Your task to perform on an android device: open app "Expedia: Hotels, Flights & Car" (install if not already installed) and enter user name: "crusader@outlook.com" and password: "Toryize" Image 0: 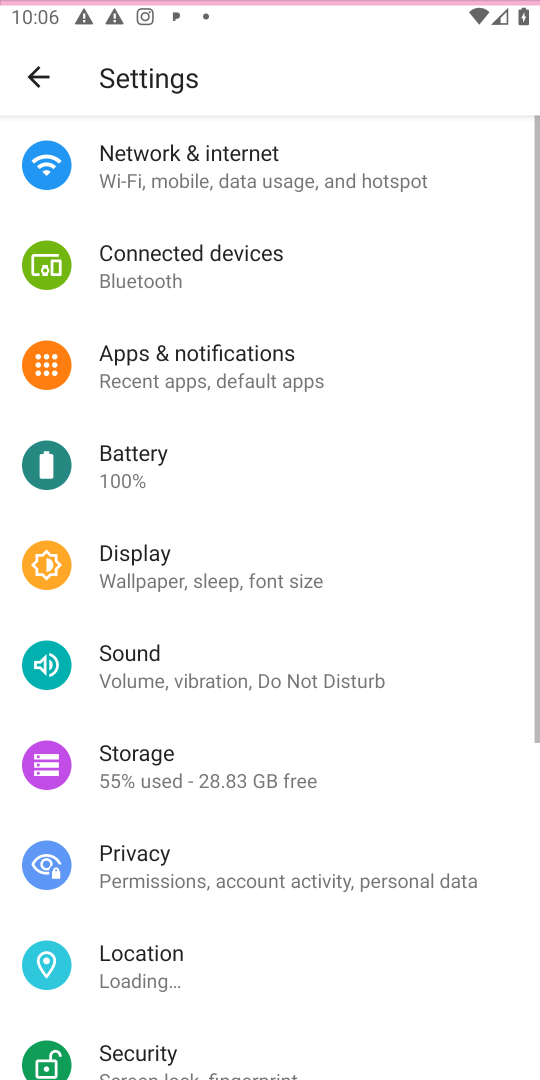
Step 0: press home button
Your task to perform on an android device: open app "Expedia: Hotels, Flights & Car" (install if not already installed) and enter user name: "crusader@outlook.com" and password: "Toryize" Image 1: 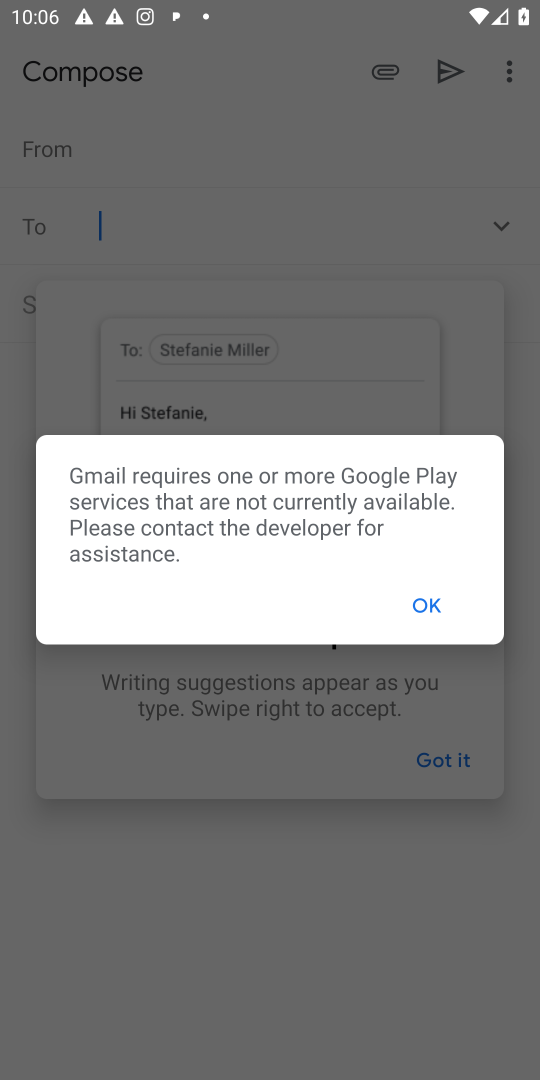
Step 1: press home button
Your task to perform on an android device: open app "Expedia: Hotels, Flights & Car" (install if not already installed) and enter user name: "crusader@outlook.com" and password: "Toryize" Image 2: 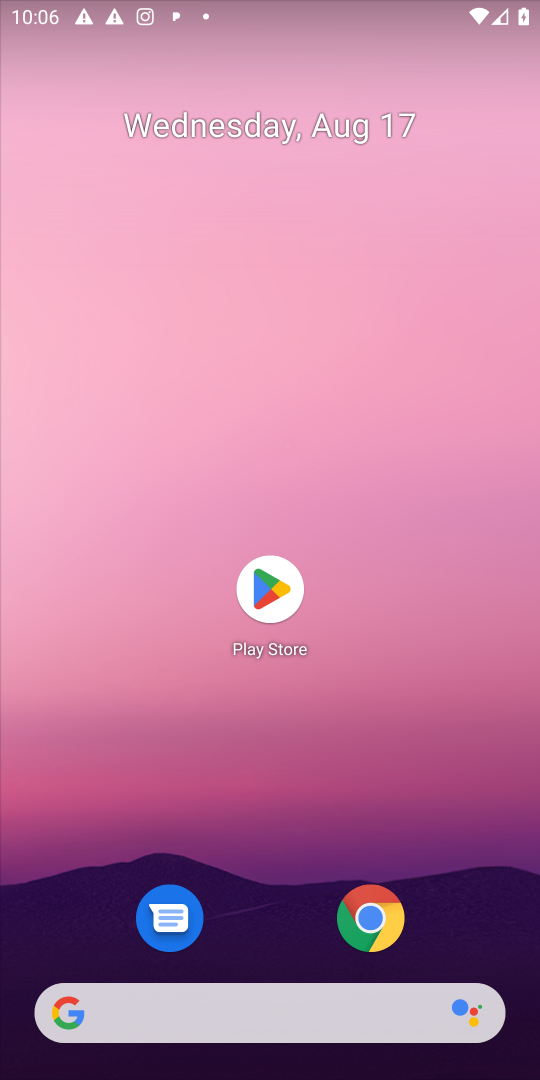
Step 2: press home button
Your task to perform on an android device: open app "Expedia: Hotels, Flights & Car" (install if not already installed) and enter user name: "crusader@outlook.com" and password: "Toryize" Image 3: 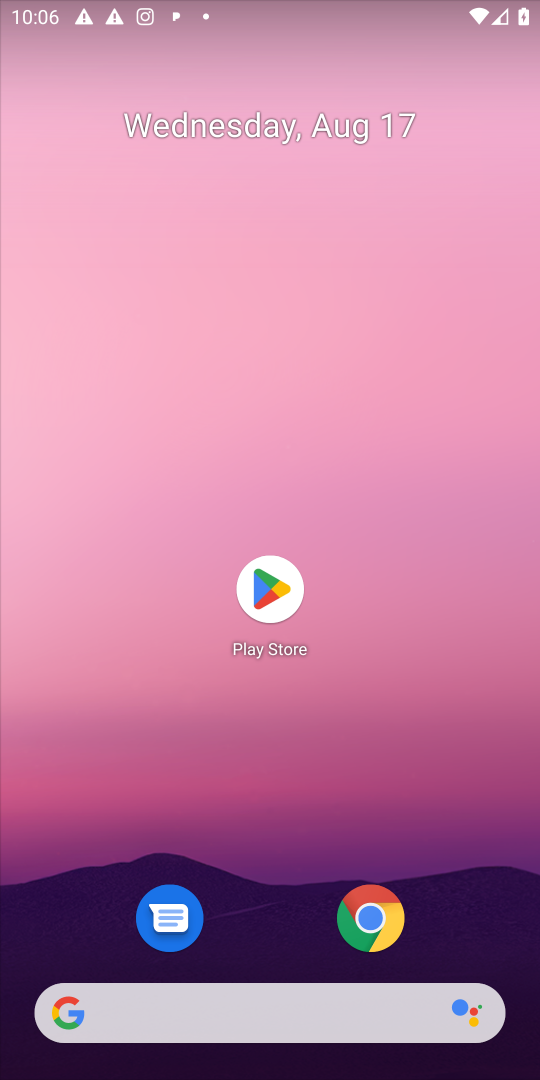
Step 3: click (266, 592)
Your task to perform on an android device: open app "Expedia: Hotels, Flights & Car" (install if not already installed) and enter user name: "crusader@outlook.com" and password: "Toryize" Image 4: 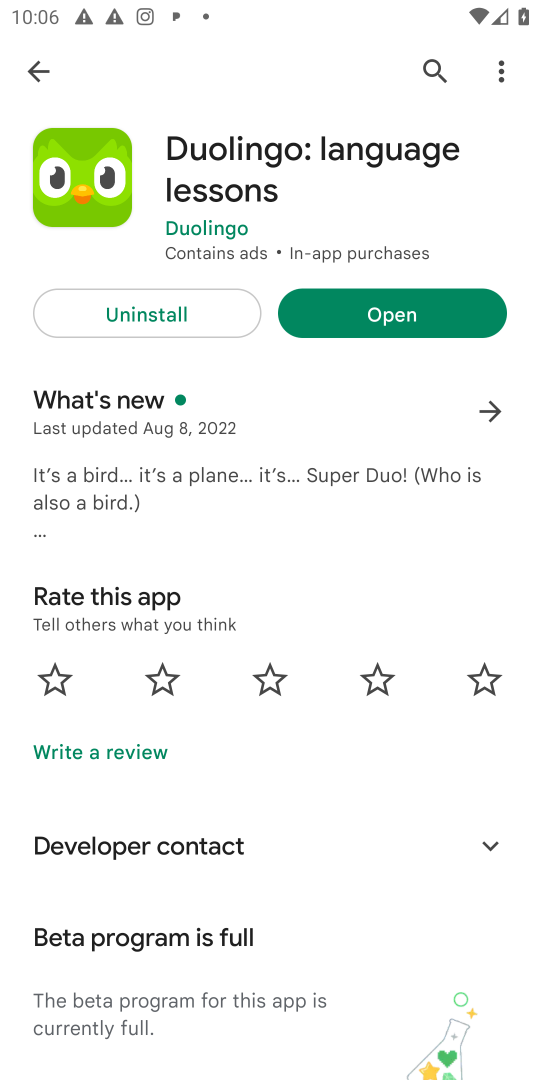
Step 4: click (432, 63)
Your task to perform on an android device: open app "Expedia: Hotels, Flights & Car" (install if not already installed) and enter user name: "crusader@outlook.com" and password: "Toryize" Image 5: 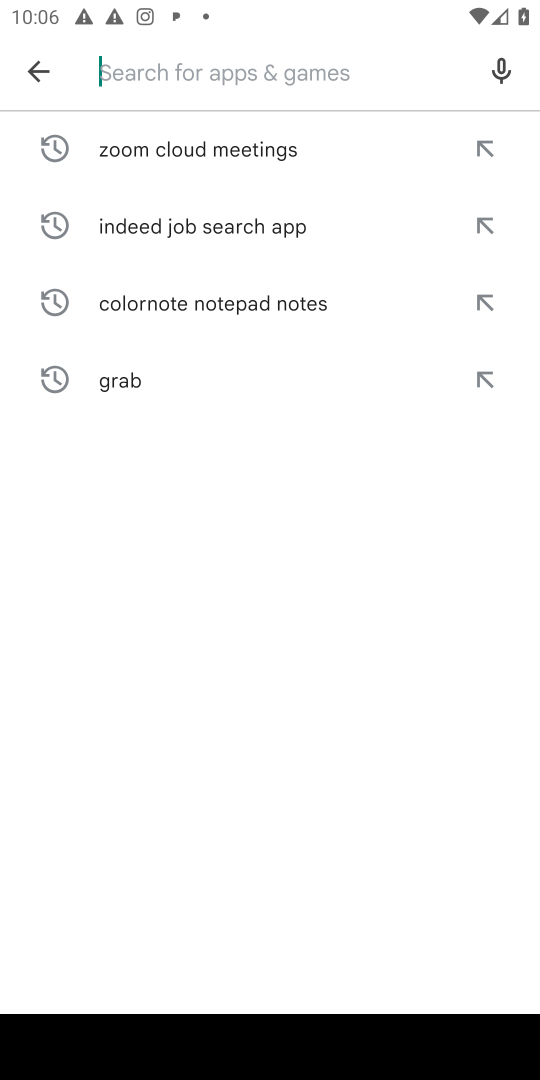
Step 5: type "Expedia: Hotels, Flights & Car"
Your task to perform on an android device: open app "Expedia: Hotels, Flights & Car" (install if not already installed) and enter user name: "crusader@outlook.com" and password: "Toryize" Image 6: 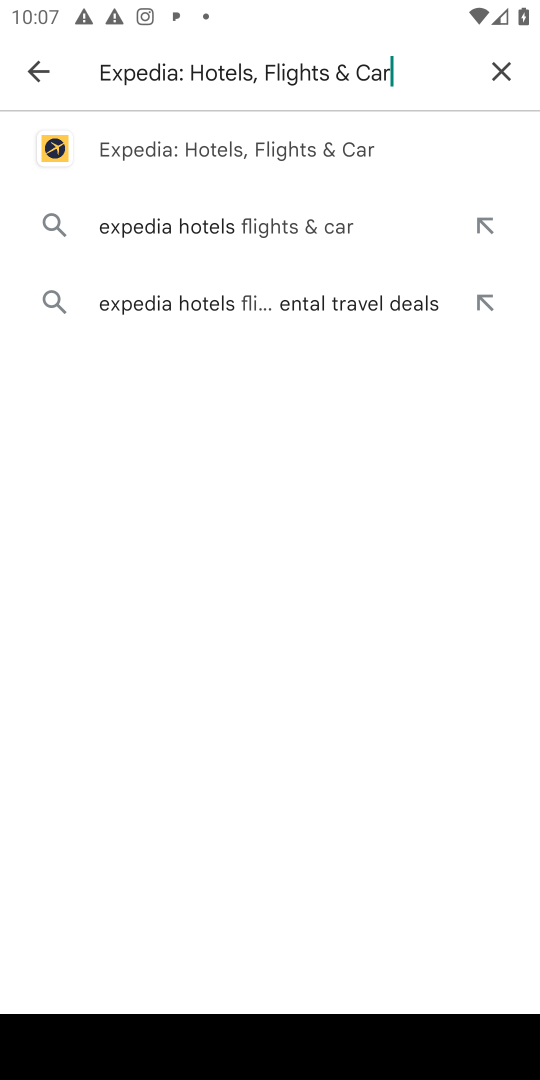
Step 6: click (240, 142)
Your task to perform on an android device: open app "Expedia: Hotels, Flights & Car" (install if not already installed) and enter user name: "crusader@outlook.com" and password: "Toryize" Image 7: 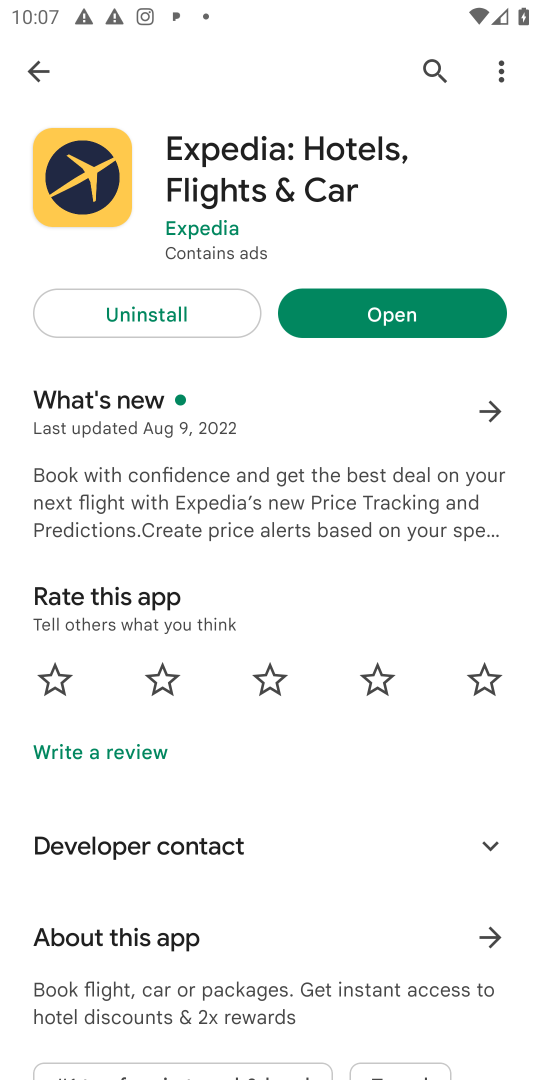
Step 7: click (362, 320)
Your task to perform on an android device: open app "Expedia: Hotels, Flights & Car" (install if not already installed) and enter user name: "crusader@outlook.com" and password: "Toryize" Image 8: 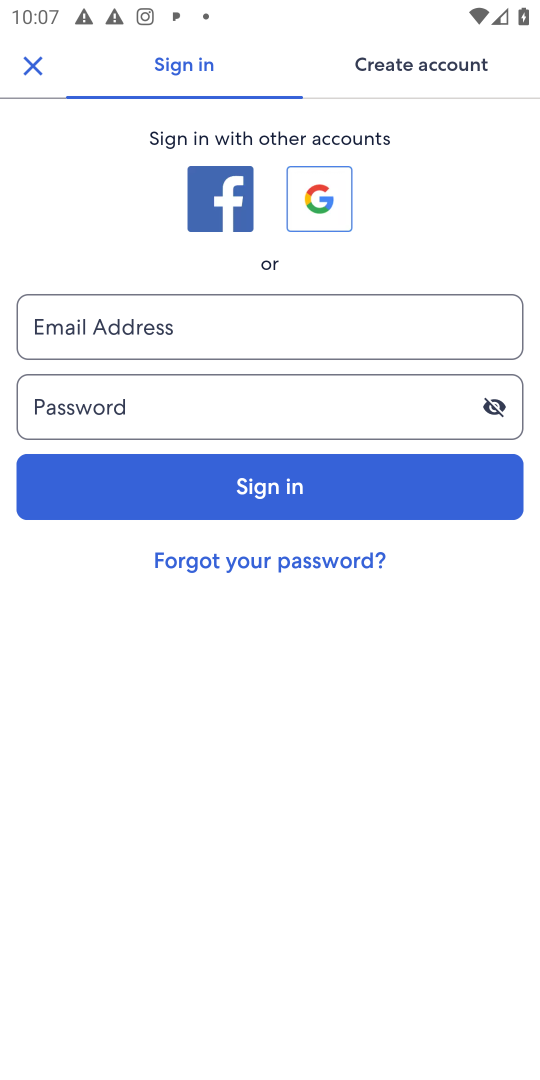
Step 8: click (192, 315)
Your task to perform on an android device: open app "Expedia: Hotels, Flights & Car" (install if not already installed) and enter user name: "crusader@outlook.com" and password: "Toryize" Image 9: 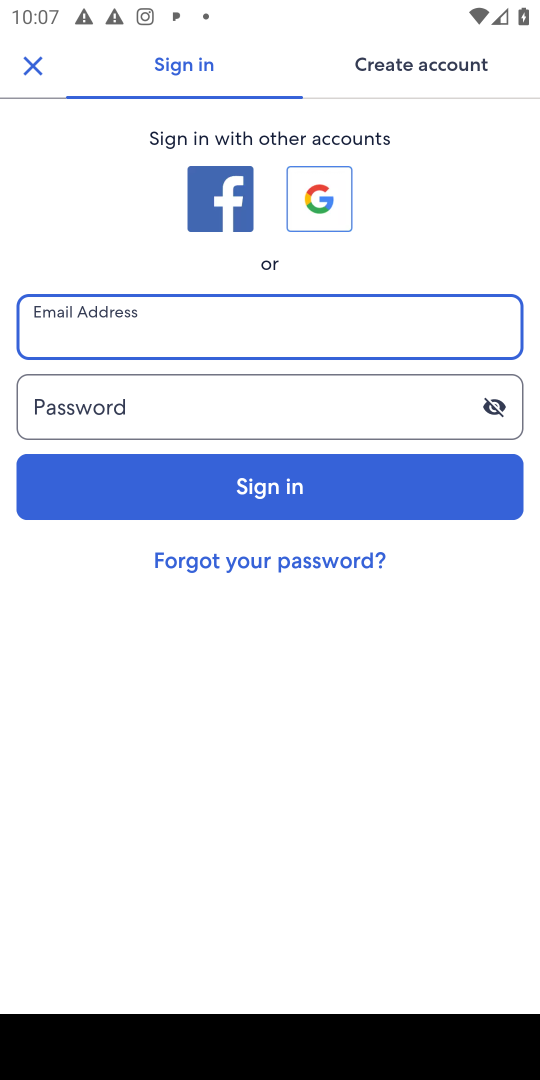
Step 9: type "crusader@outlook.com"
Your task to perform on an android device: open app "Expedia: Hotels, Flights & Car" (install if not already installed) and enter user name: "crusader@outlook.com" and password: "Toryize" Image 10: 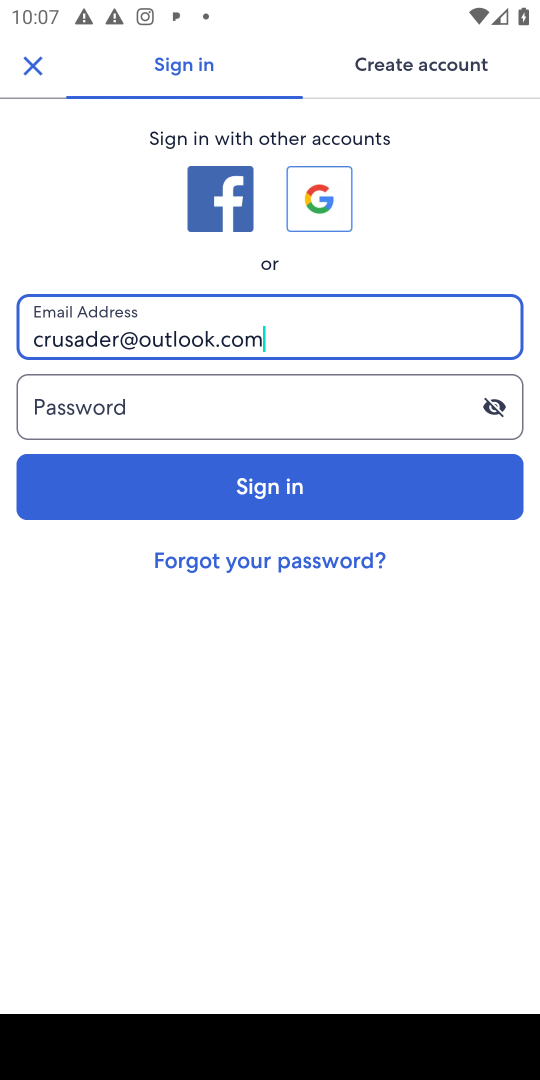
Step 10: click (94, 405)
Your task to perform on an android device: open app "Expedia: Hotels, Flights & Car" (install if not already installed) and enter user name: "crusader@outlook.com" and password: "Toryize" Image 11: 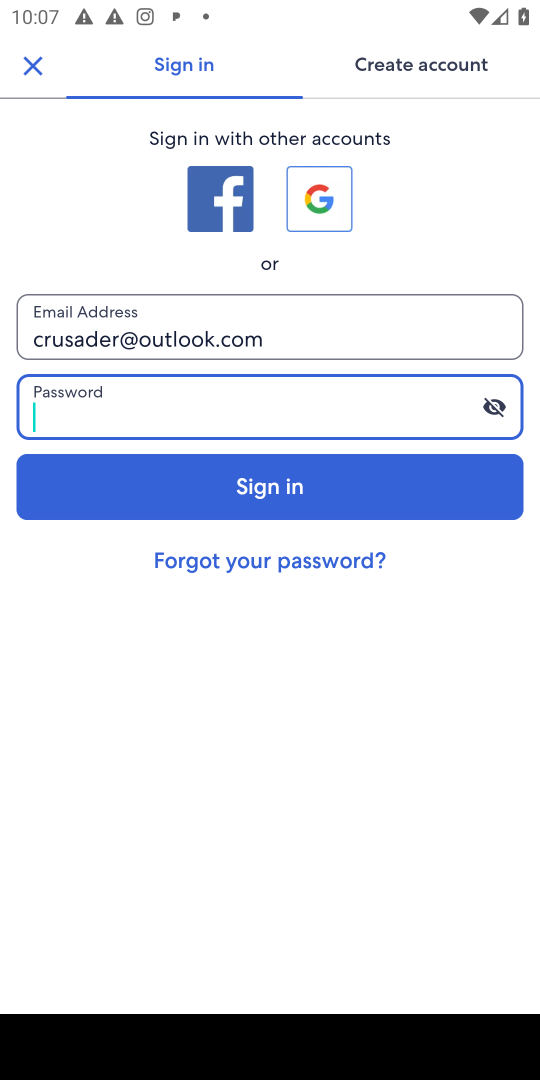
Step 11: type "Toryize"
Your task to perform on an android device: open app "Expedia: Hotels, Flights & Car" (install if not already installed) and enter user name: "crusader@outlook.com" and password: "Toryize" Image 12: 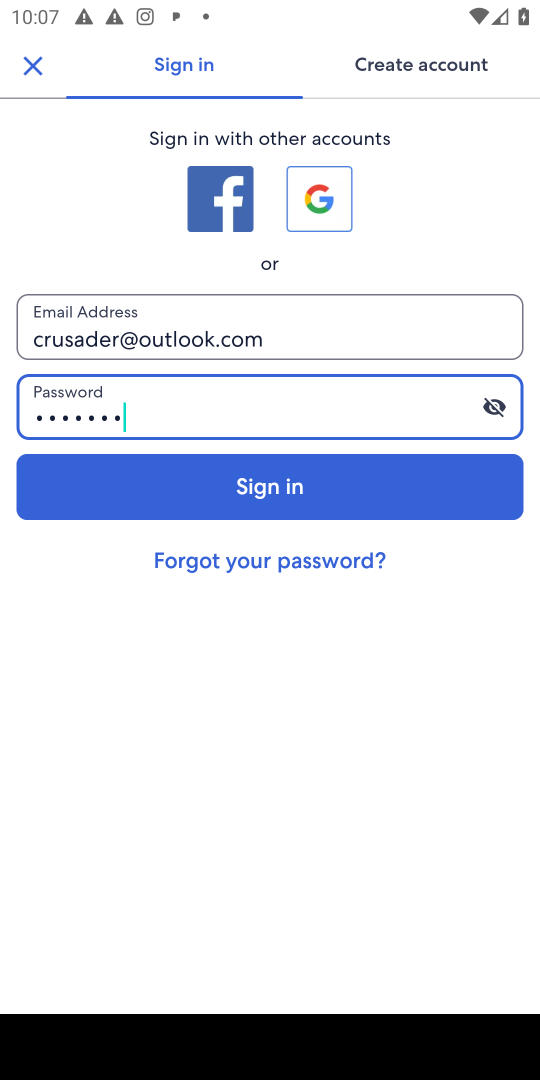
Step 12: task complete